Your task to perform on an android device: turn off wifi Image 0: 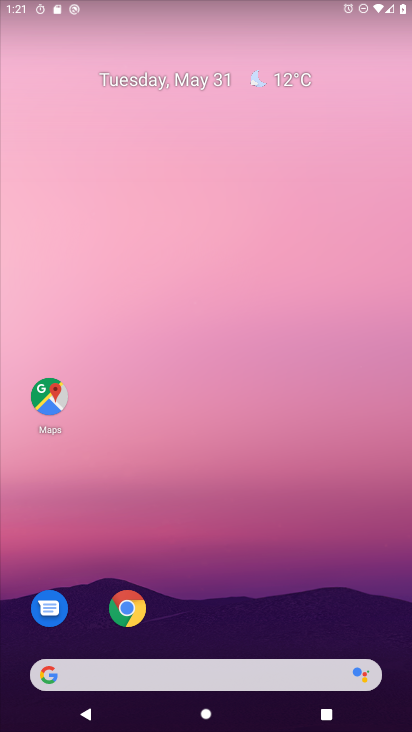
Step 0: drag from (305, 620) to (340, 3)
Your task to perform on an android device: turn off wifi Image 1: 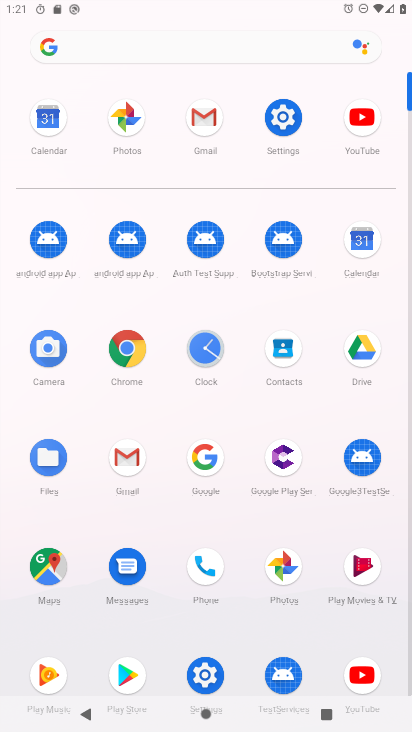
Step 1: click (282, 123)
Your task to perform on an android device: turn off wifi Image 2: 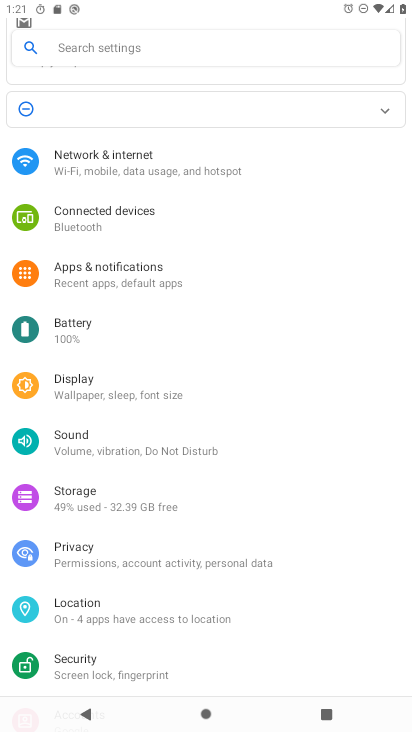
Step 2: click (95, 163)
Your task to perform on an android device: turn off wifi Image 3: 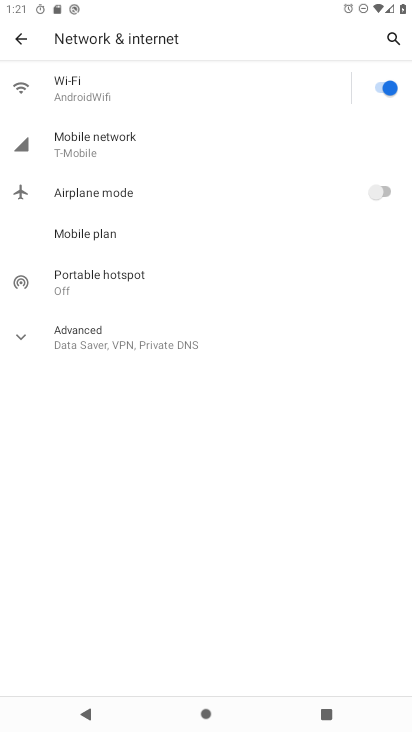
Step 3: click (379, 90)
Your task to perform on an android device: turn off wifi Image 4: 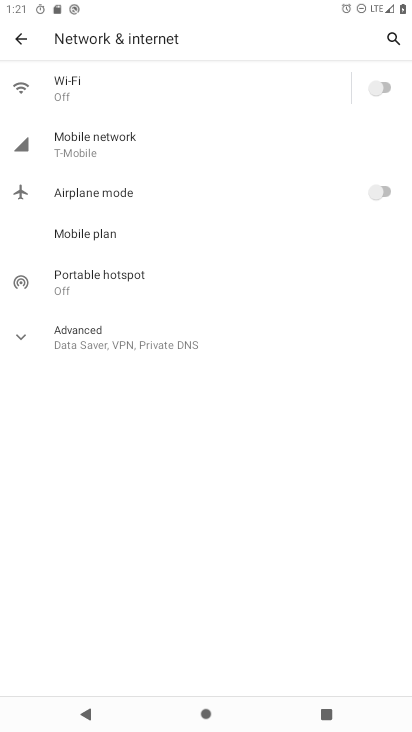
Step 4: task complete